Your task to perform on an android device: Check my gmail Image 0: 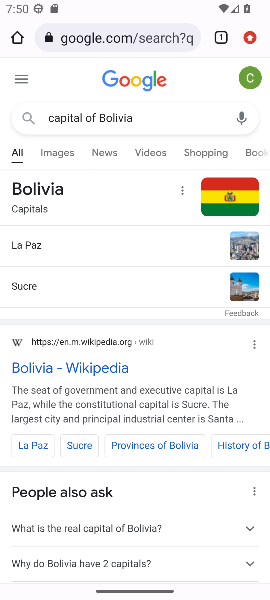
Step 0: click (90, 36)
Your task to perform on an android device: Check my gmail Image 1: 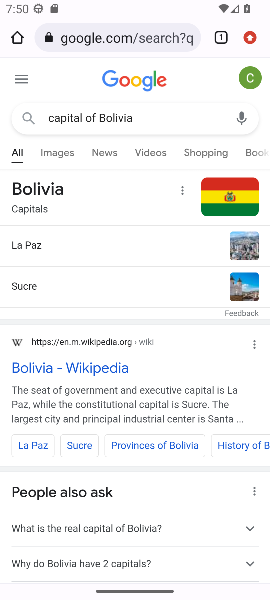
Step 1: click (123, 33)
Your task to perform on an android device: Check my gmail Image 2: 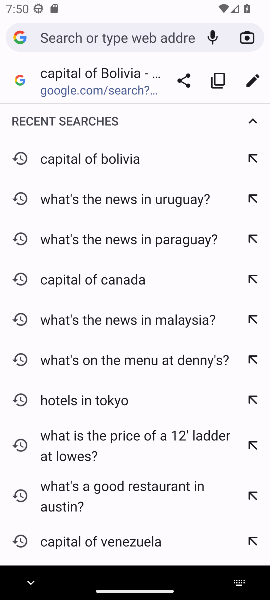
Step 2: press home button
Your task to perform on an android device: Check my gmail Image 3: 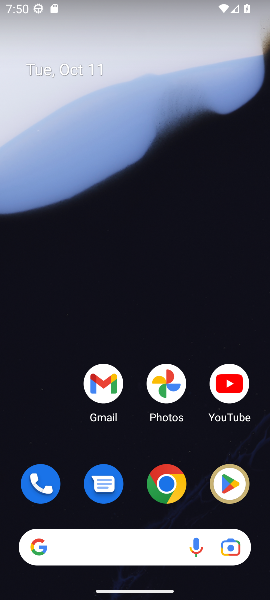
Step 3: drag from (113, 508) to (171, 115)
Your task to perform on an android device: Check my gmail Image 4: 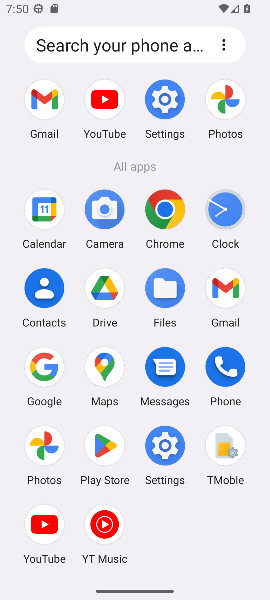
Step 4: click (241, 299)
Your task to perform on an android device: Check my gmail Image 5: 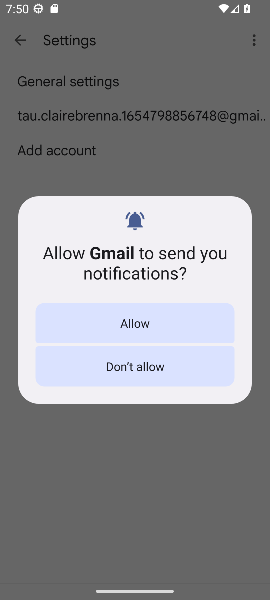
Step 5: click (163, 320)
Your task to perform on an android device: Check my gmail Image 6: 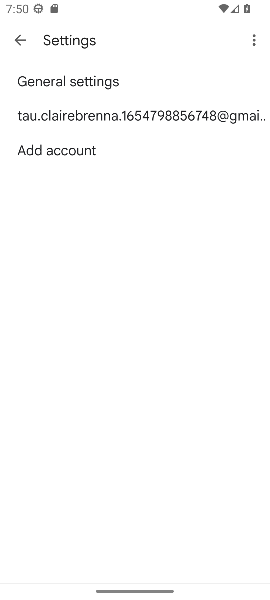
Step 6: click (18, 36)
Your task to perform on an android device: Check my gmail Image 7: 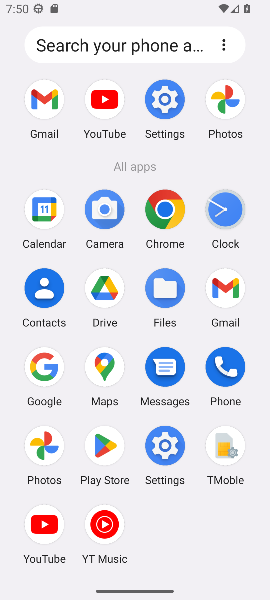
Step 7: click (217, 302)
Your task to perform on an android device: Check my gmail Image 8: 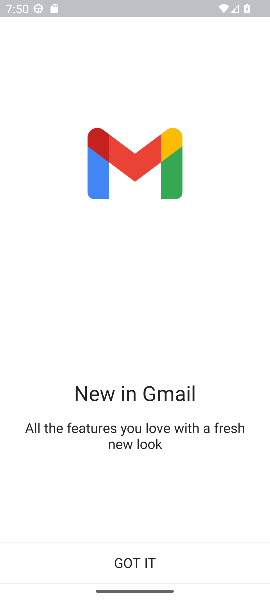
Step 8: click (121, 558)
Your task to perform on an android device: Check my gmail Image 9: 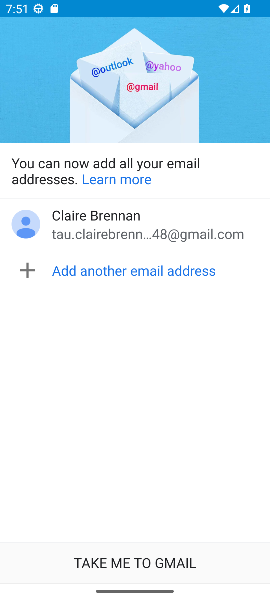
Step 9: click (116, 568)
Your task to perform on an android device: Check my gmail Image 10: 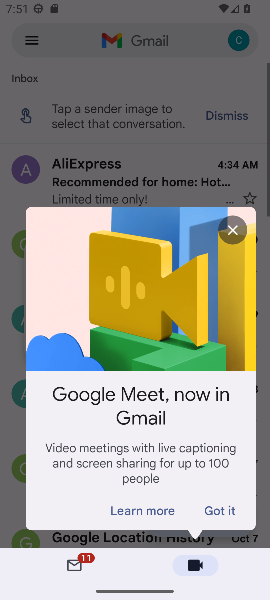
Step 10: click (194, 340)
Your task to perform on an android device: Check my gmail Image 11: 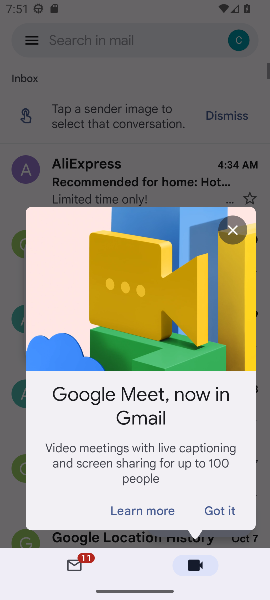
Step 11: click (214, 510)
Your task to perform on an android device: Check my gmail Image 12: 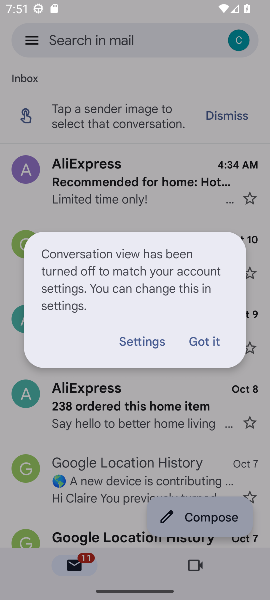
Step 12: click (203, 344)
Your task to perform on an android device: Check my gmail Image 13: 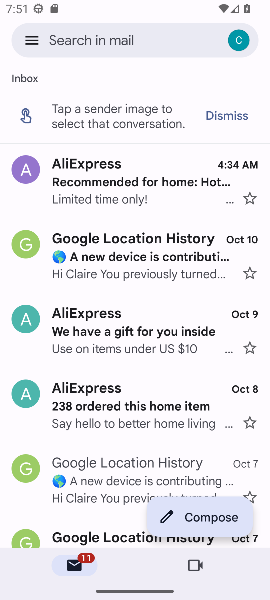
Step 13: task complete